Your task to perform on an android device: Open the phone app and click the voicemail tab. Image 0: 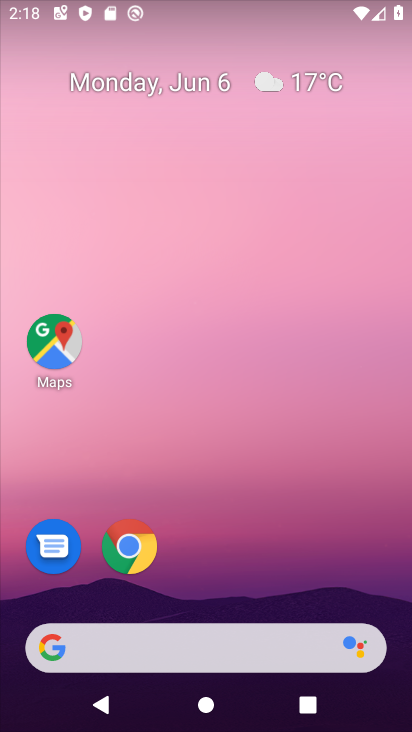
Step 0: drag from (339, 566) to (352, 143)
Your task to perform on an android device: Open the phone app and click the voicemail tab. Image 1: 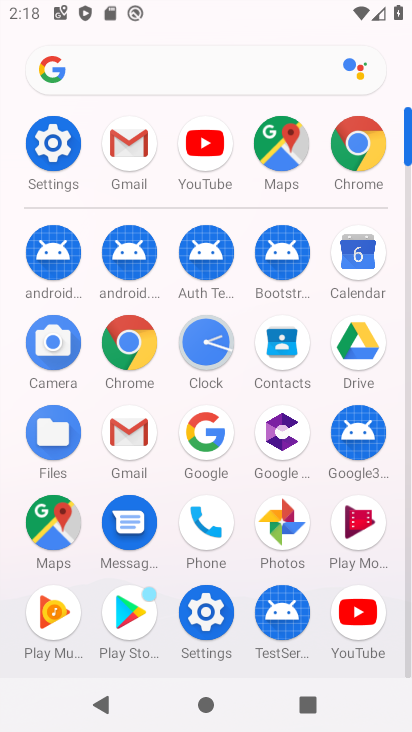
Step 1: click (187, 509)
Your task to perform on an android device: Open the phone app and click the voicemail tab. Image 2: 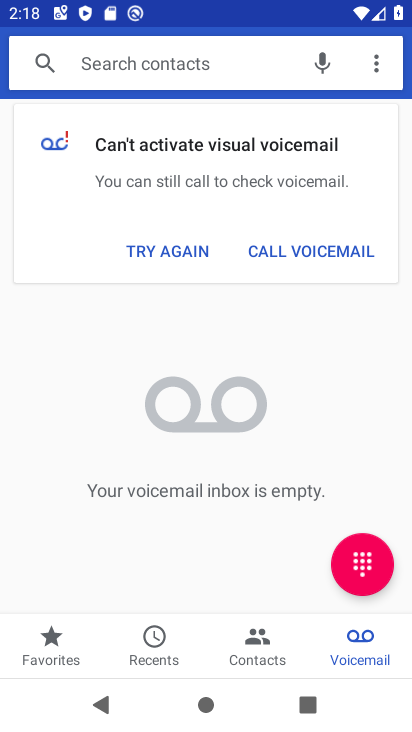
Step 2: task complete